Your task to perform on an android device: turn on location history Image 0: 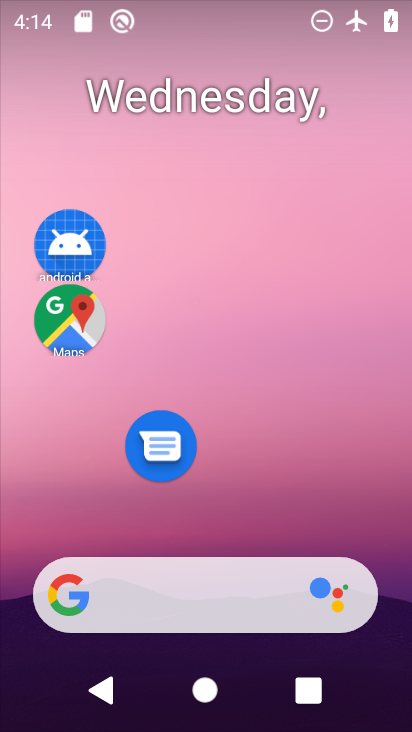
Step 0: drag from (289, 512) to (283, 51)
Your task to perform on an android device: turn on location history Image 1: 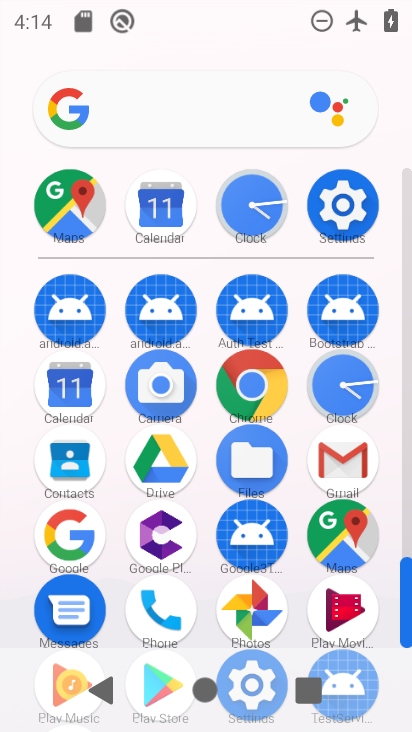
Step 1: click (325, 200)
Your task to perform on an android device: turn on location history Image 2: 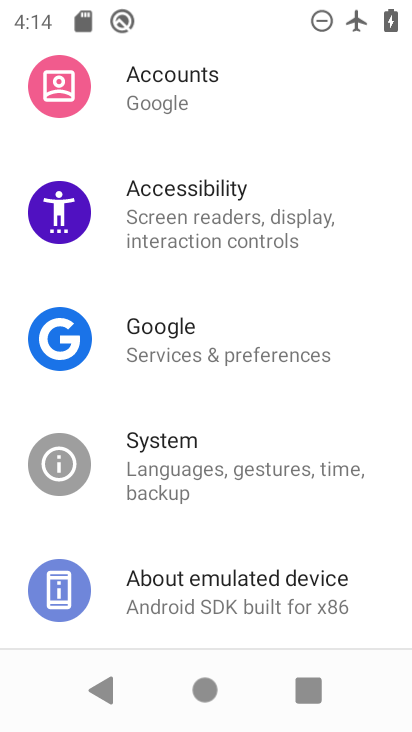
Step 2: drag from (204, 265) to (221, 490)
Your task to perform on an android device: turn on location history Image 3: 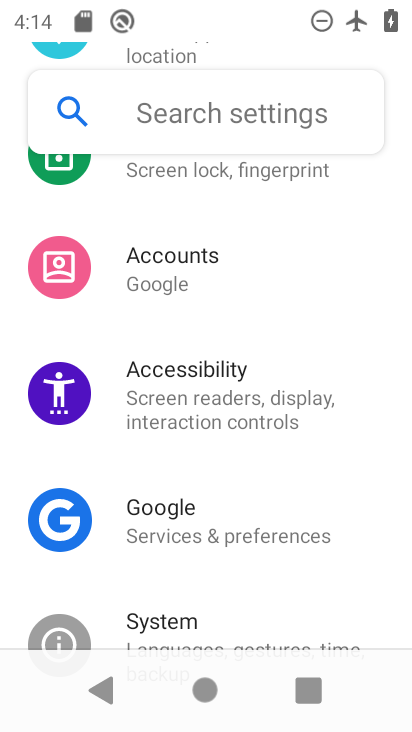
Step 3: drag from (228, 168) to (246, 521)
Your task to perform on an android device: turn on location history Image 4: 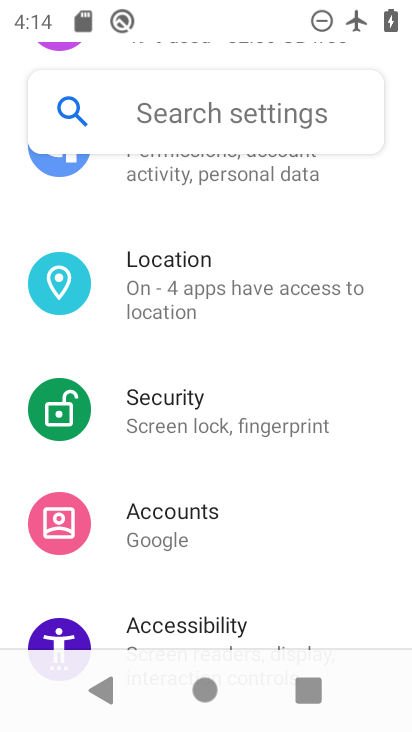
Step 4: click (162, 267)
Your task to perform on an android device: turn on location history Image 5: 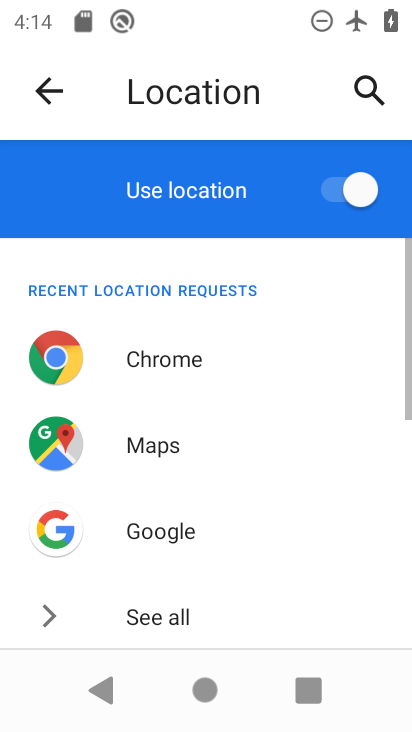
Step 5: drag from (201, 549) to (204, 179)
Your task to perform on an android device: turn on location history Image 6: 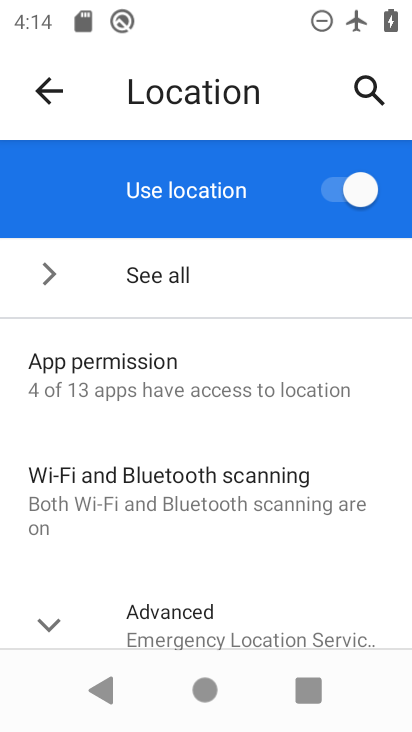
Step 6: drag from (209, 538) to (211, 372)
Your task to perform on an android device: turn on location history Image 7: 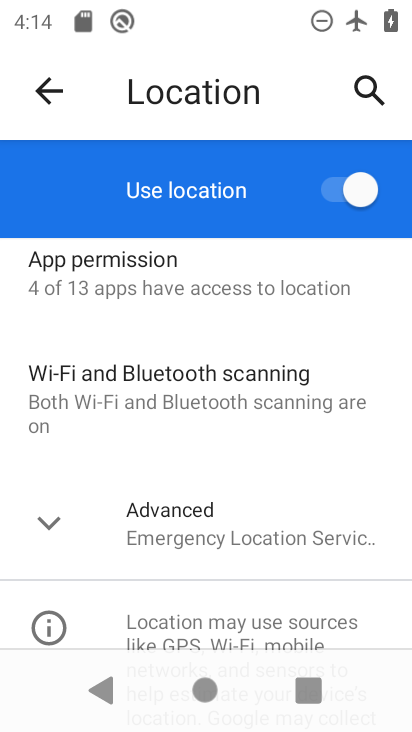
Step 7: click (193, 548)
Your task to perform on an android device: turn on location history Image 8: 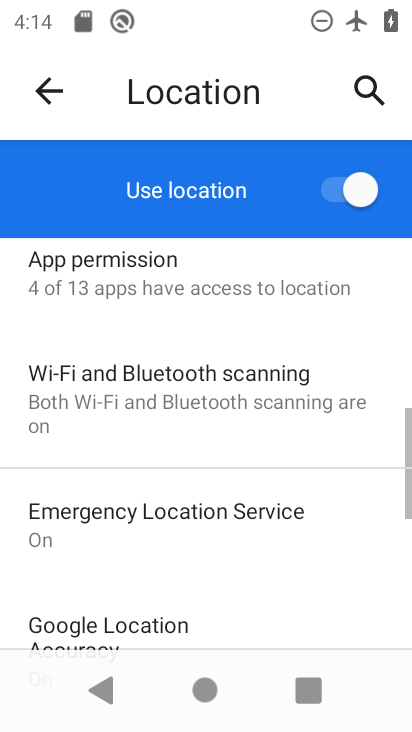
Step 8: drag from (193, 548) to (202, 271)
Your task to perform on an android device: turn on location history Image 9: 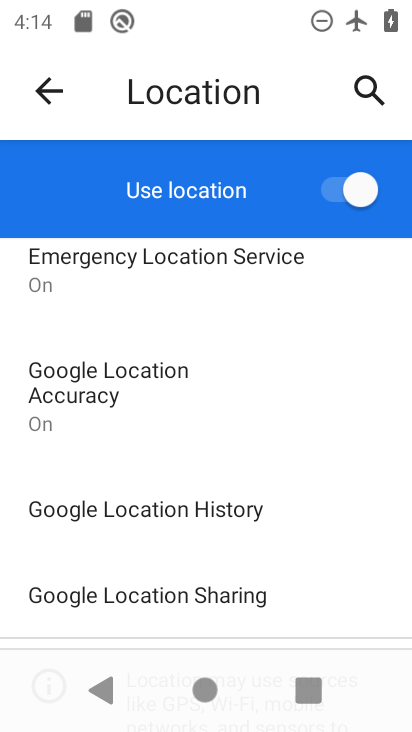
Step 9: click (202, 520)
Your task to perform on an android device: turn on location history Image 10: 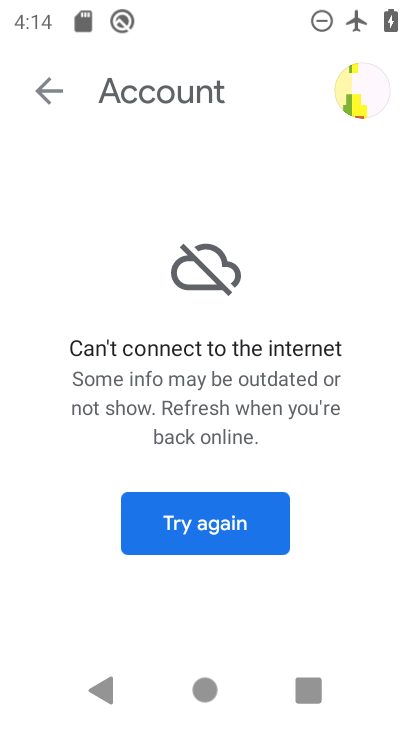
Step 10: click (251, 514)
Your task to perform on an android device: turn on location history Image 11: 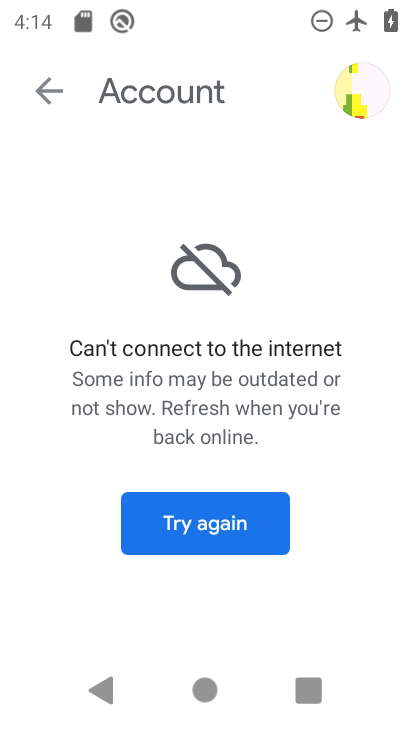
Step 11: task complete